Your task to perform on an android device: refresh tabs in the chrome app Image 0: 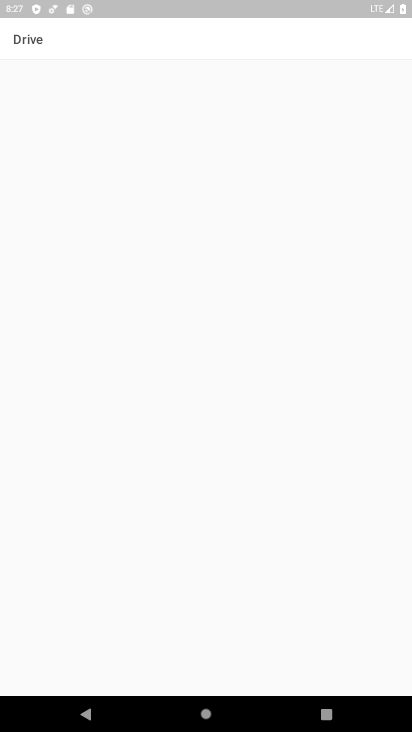
Step 0: press home button
Your task to perform on an android device: refresh tabs in the chrome app Image 1: 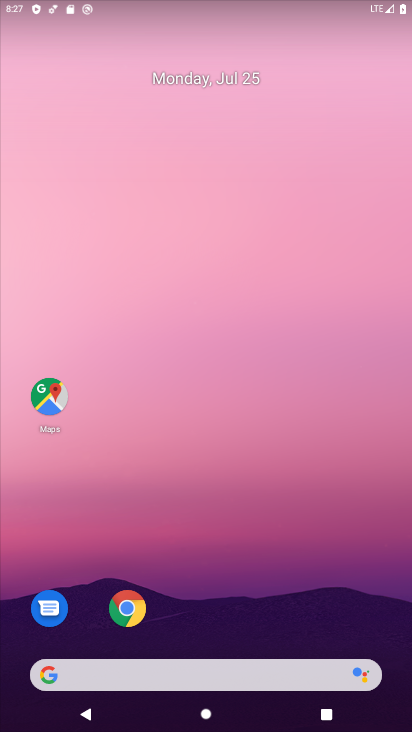
Step 1: drag from (230, 692) to (248, 102)
Your task to perform on an android device: refresh tabs in the chrome app Image 2: 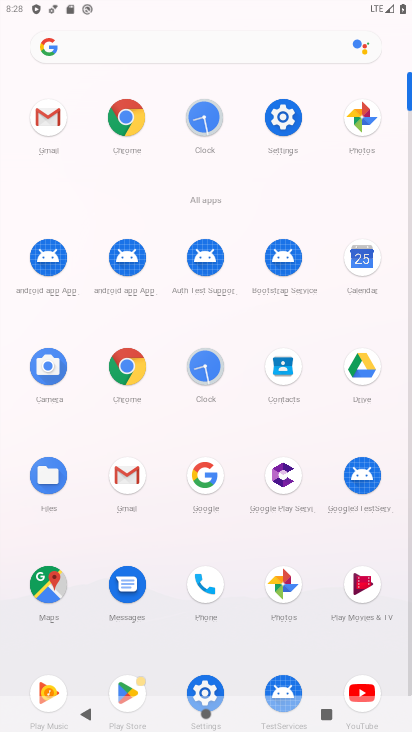
Step 2: click (125, 361)
Your task to perform on an android device: refresh tabs in the chrome app Image 3: 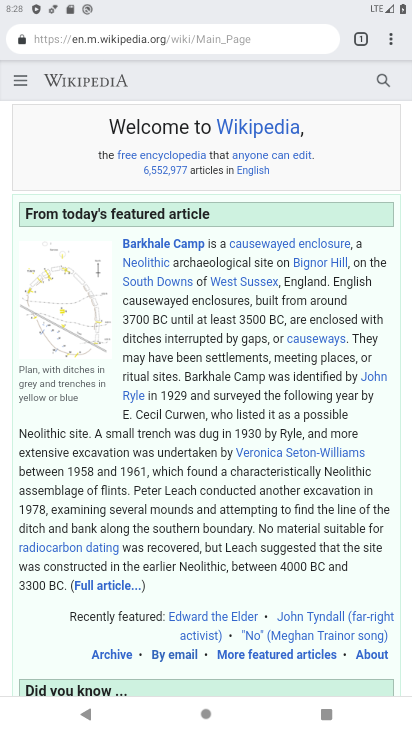
Step 3: click (391, 45)
Your task to perform on an android device: refresh tabs in the chrome app Image 4: 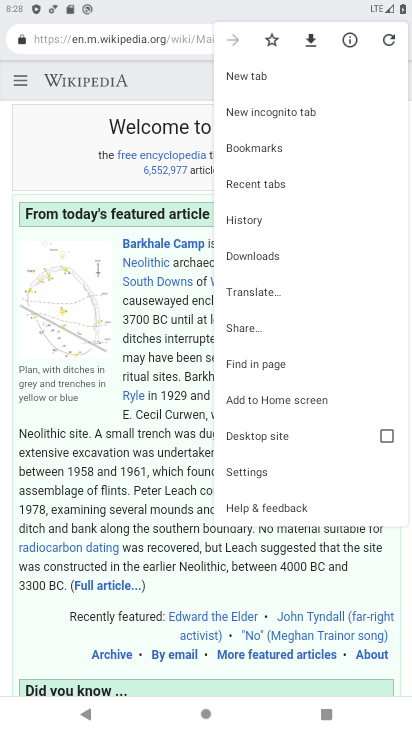
Step 4: click (387, 35)
Your task to perform on an android device: refresh tabs in the chrome app Image 5: 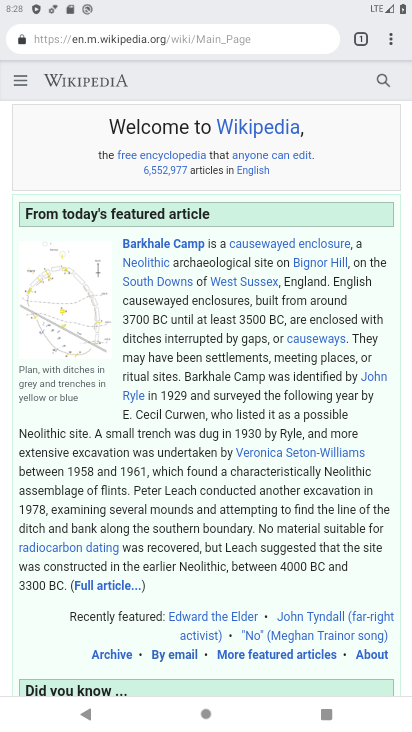
Step 5: task complete